Your task to perform on an android device: What's the weather going to be this weekend? Image 0: 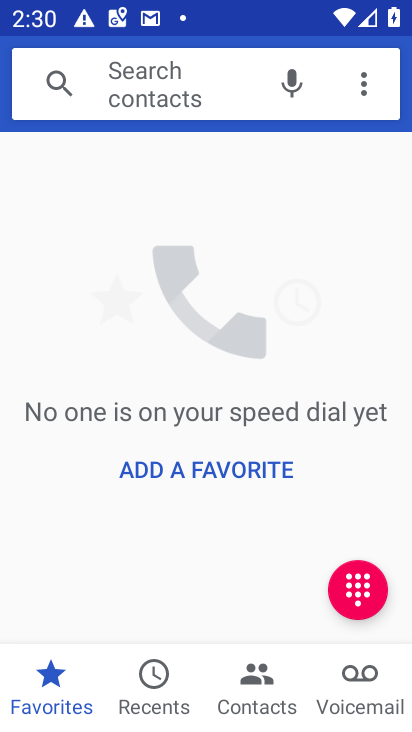
Step 0: press home button
Your task to perform on an android device: What's the weather going to be this weekend? Image 1: 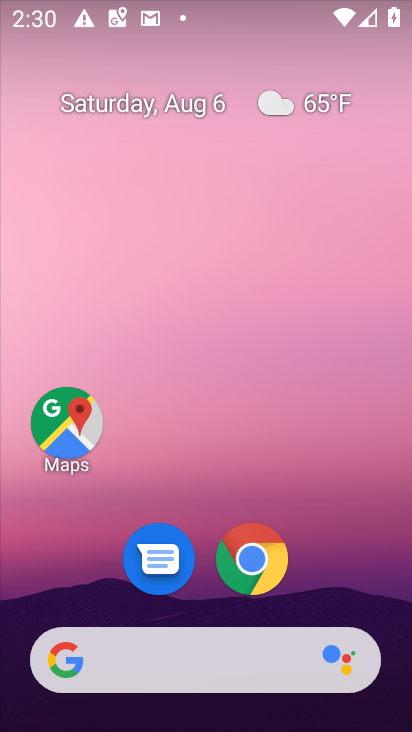
Step 1: drag from (200, 506) to (200, 115)
Your task to perform on an android device: What's the weather going to be this weekend? Image 2: 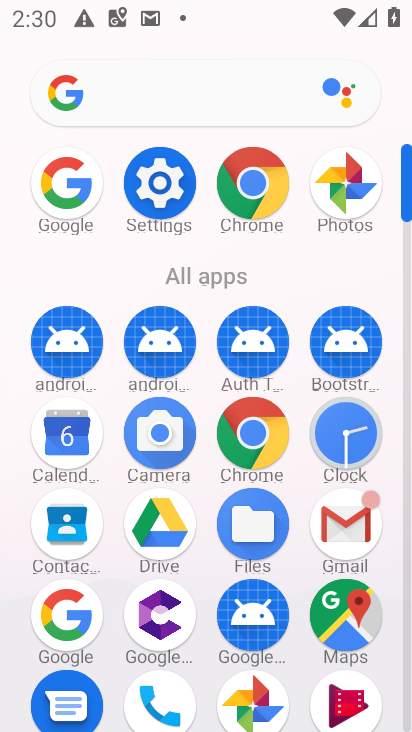
Step 2: click (84, 613)
Your task to perform on an android device: What's the weather going to be this weekend? Image 3: 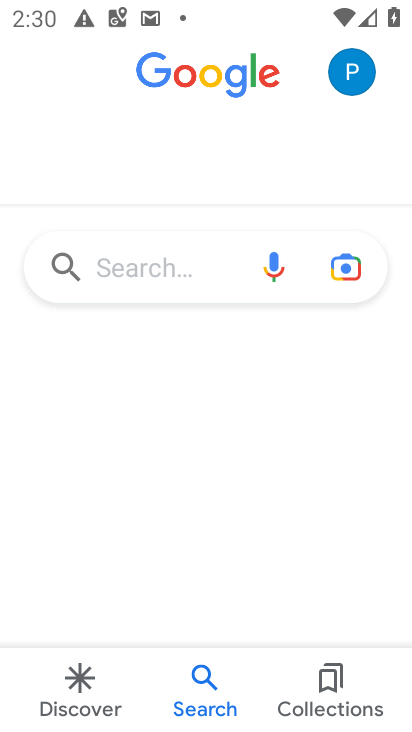
Step 3: click (145, 262)
Your task to perform on an android device: What's the weather going to be this weekend? Image 4: 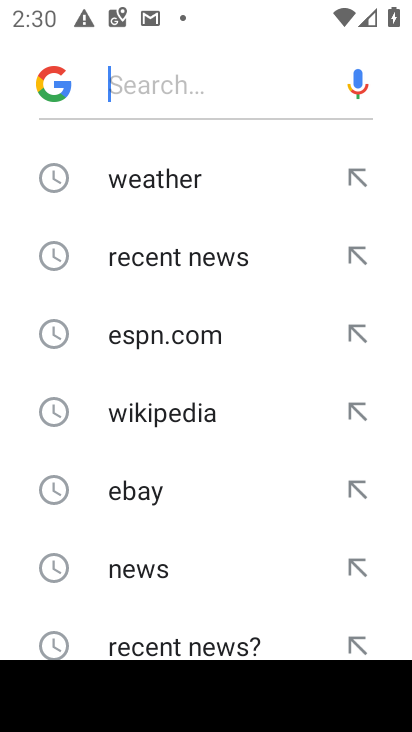
Step 4: click (184, 184)
Your task to perform on an android device: What's the weather going to be this weekend? Image 5: 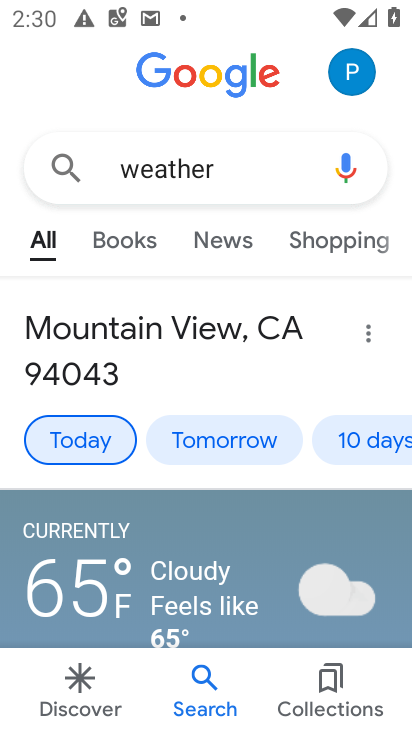
Step 5: click (360, 438)
Your task to perform on an android device: What's the weather going to be this weekend? Image 6: 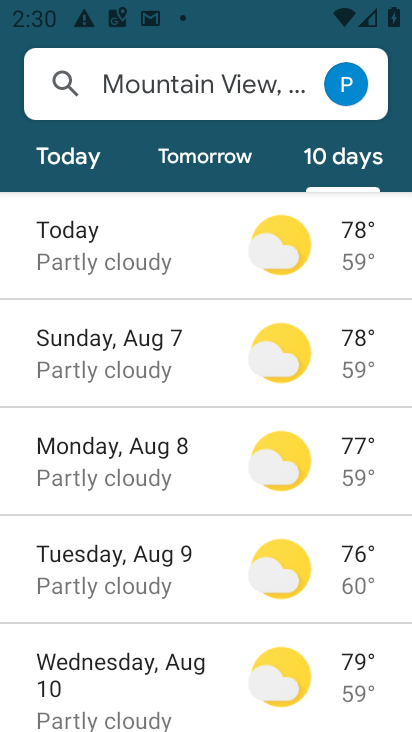
Step 6: task complete